Your task to perform on an android device: Open the web browser Image 0: 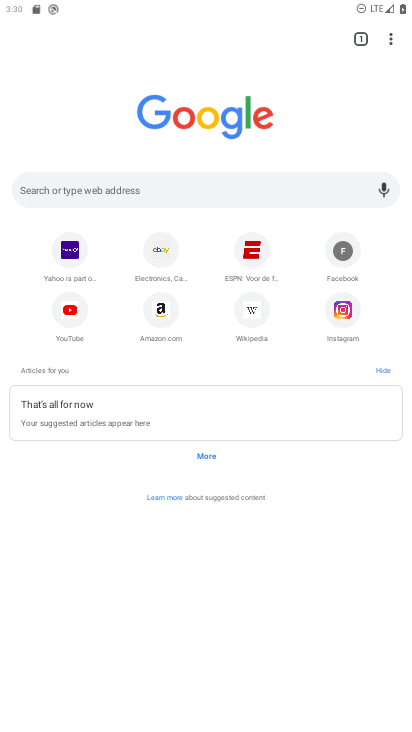
Step 0: press home button
Your task to perform on an android device: Open the web browser Image 1: 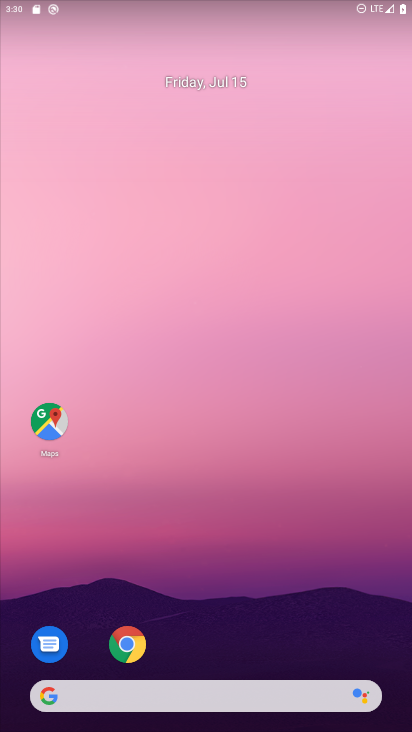
Step 1: task complete